Your task to perform on an android device: turn off javascript in the chrome app Image 0: 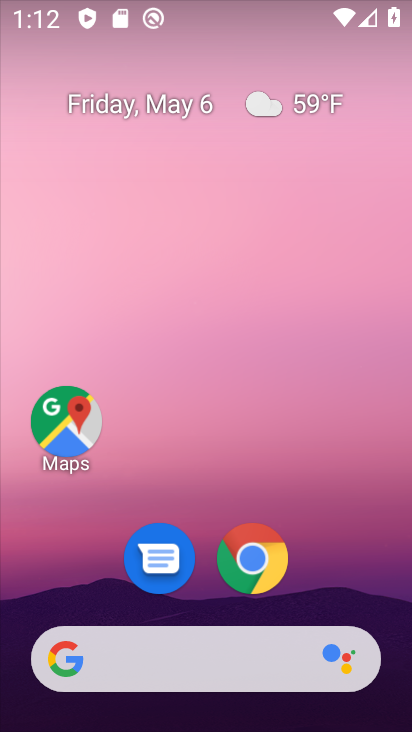
Step 0: click (247, 563)
Your task to perform on an android device: turn off javascript in the chrome app Image 1: 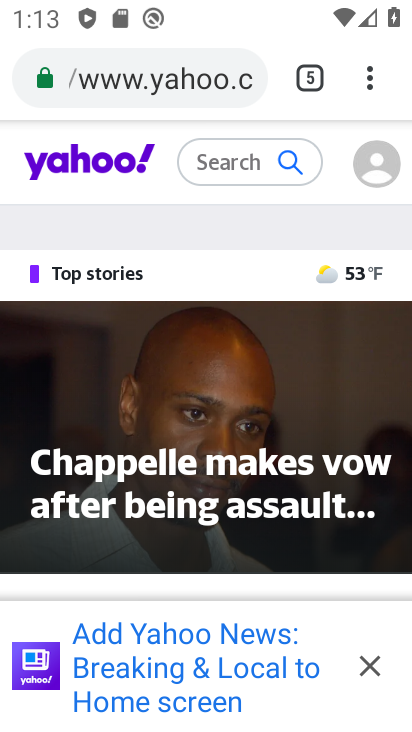
Step 1: click (370, 84)
Your task to perform on an android device: turn off javascript in the chrome app Image 2: 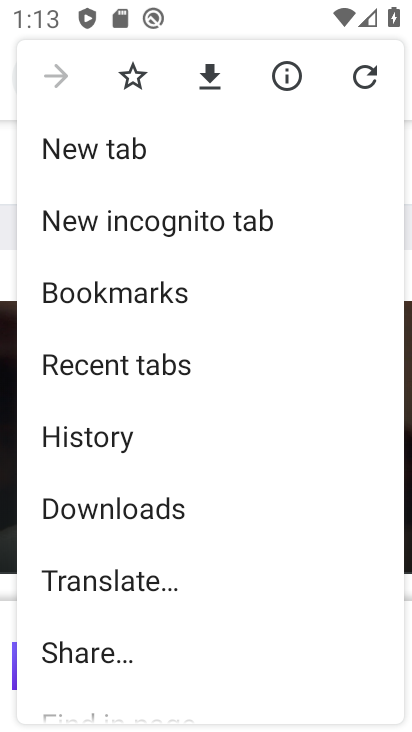
Step 2: drag from (139, 630) to (148, 196)
Your task to perform on an android device: turn off javascript in the chrome app Image 3: 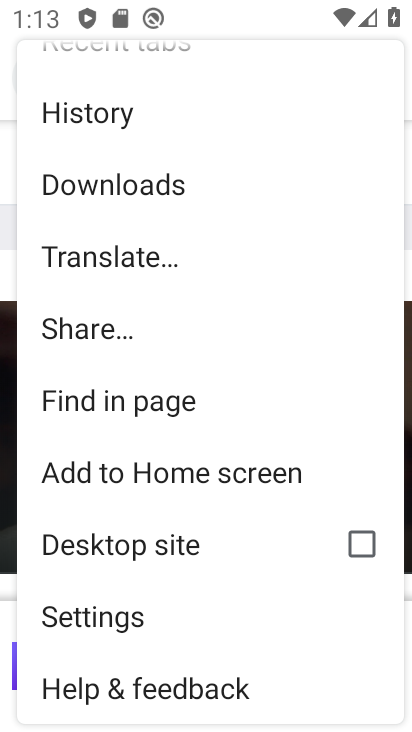
Step 3: click (102, 621)
Your task to perform on an android device: turn off javascript in the chrome app Image 4: 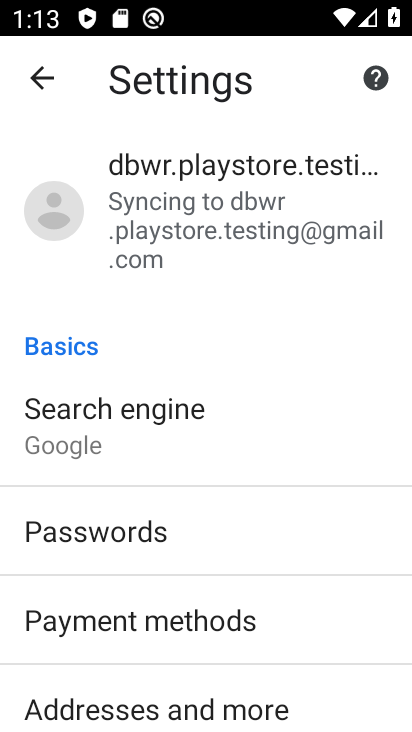
Step 4: drag from (152, 672) to (193, 205)
Your task to perform on an android device: turn off javascript in the chrome app Image 5: 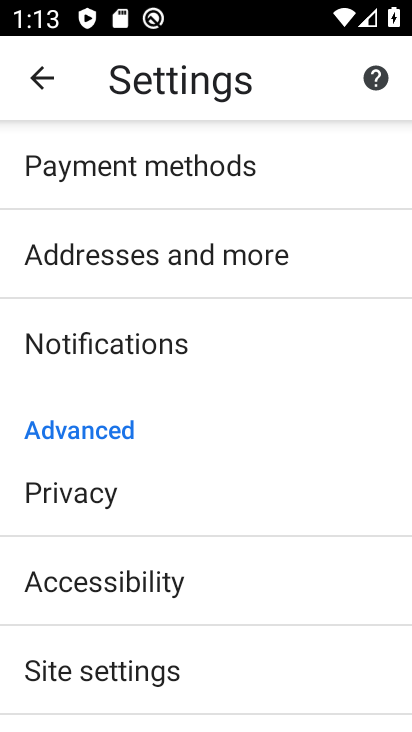
Step 5: drag from (215, 677) to (215, 371)
Your task to perform on an android device: turn off javascript in the chrome app Image 6: 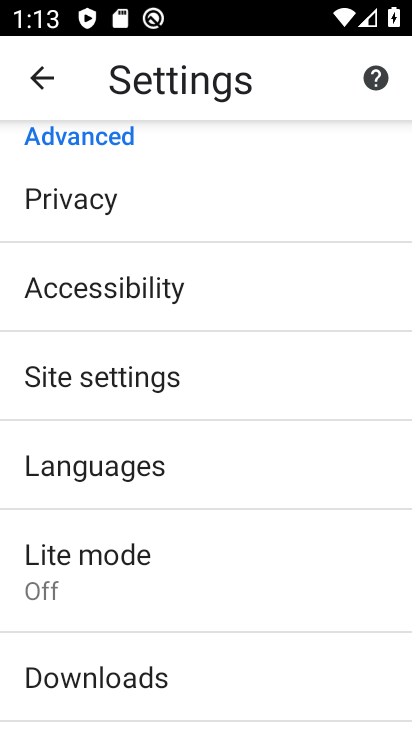
Step 6: click (107, 376)
Your task to perform on an android device: turn off javascript in the chrome app Image 7: 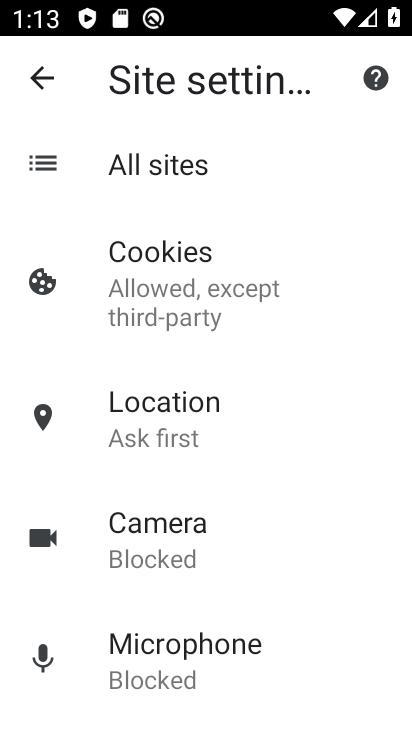
Step 7: drag from (210, 683) to (211, 323)
Your task to perform on an android device: turn off javascript in the chrome app Image 8: 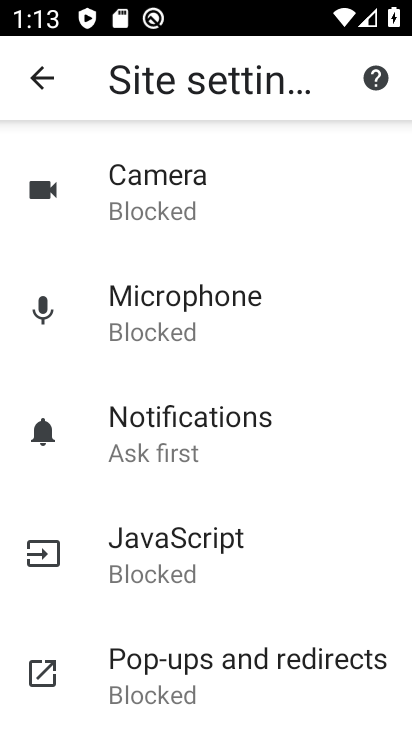
Step 8: click (188, 541)
Your task to perform on an android device: turn off javascript in the chrome app Image 9: 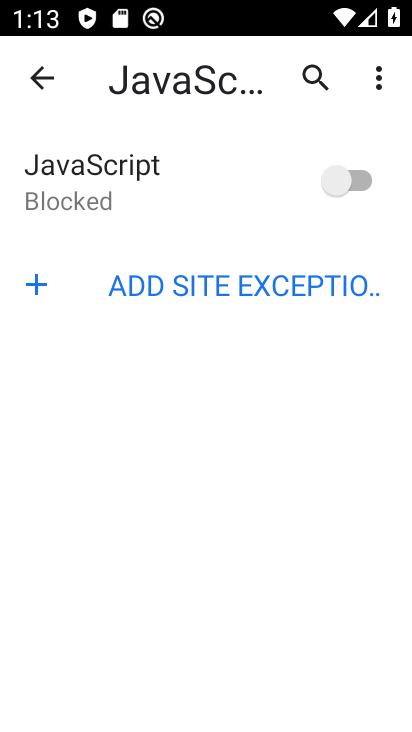
Step 9: task complete